Your task to perform on an android device: toggle airplane mode Image 0: 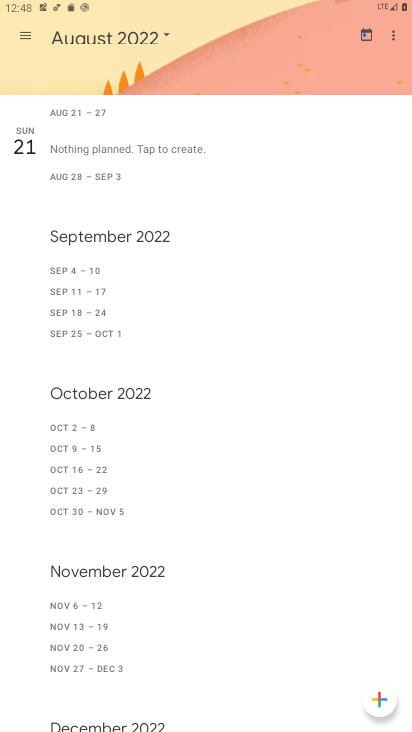
Step 0: press home button
Your task to perform on an android device: toggle airplane mode Image 1: 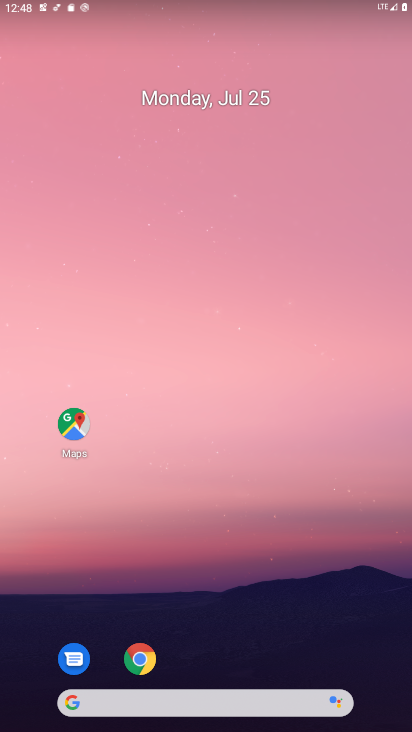
Step 1: drag from (244, 4) to (220, 505)
Your task to perform on an android device: toggle airplane mode Image 2: 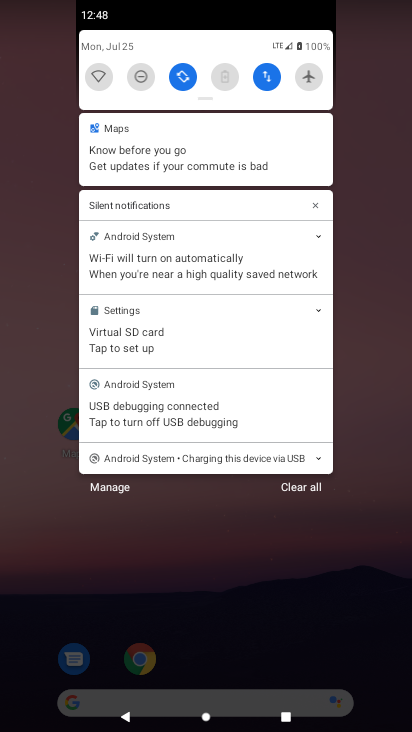
Step 2: click (304, 77)
Your task to perform on an android device: toggle airplane mode Image 3: 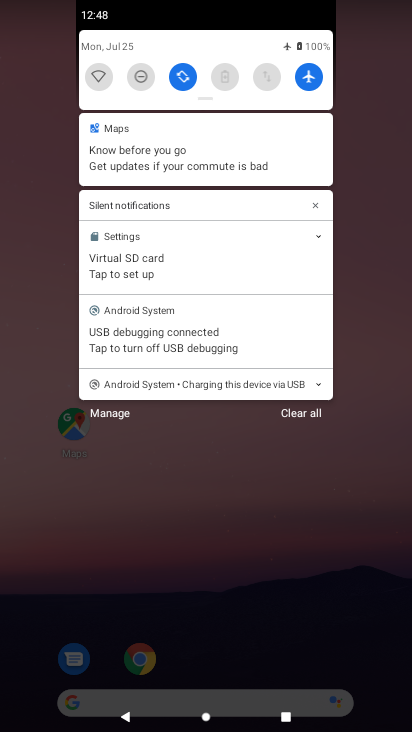
Step 3: task complete